Your task to perform on an android device: create a new album in the google photos Image 0: 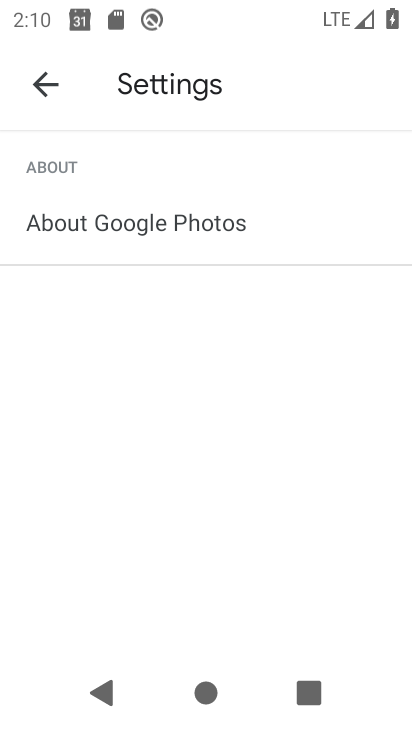
Step 0: press back button
Your task to perform on an android device: create a new album in the google photos Image 1: 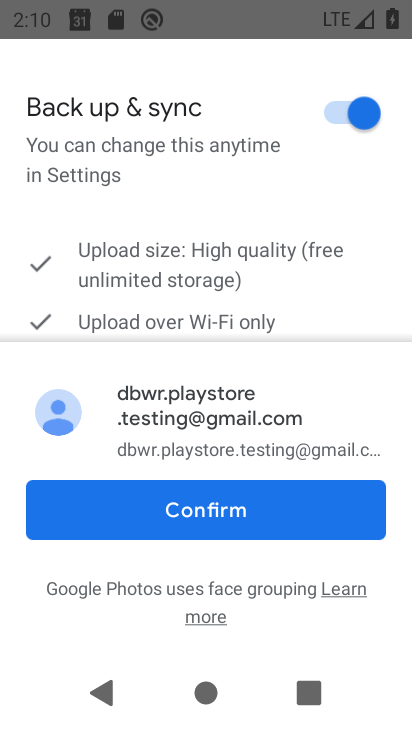
Step 1: click (262, 514)
Your task to perform on an android device: create a new album in the google photos Image 2: 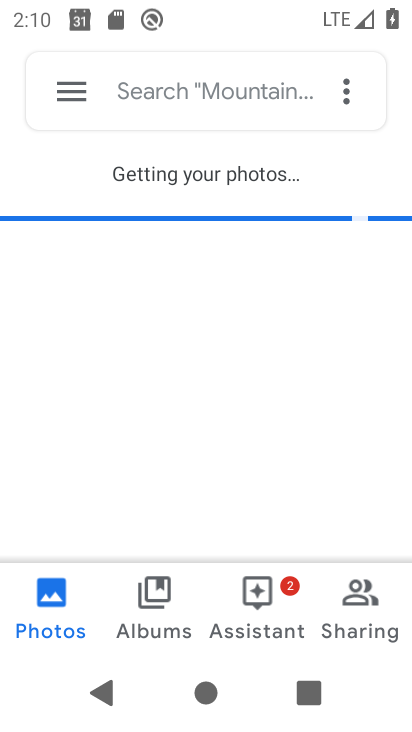
Step 2: click (163, 634)
Your task to perform on an android device: create a new album in the google photos Image 3: 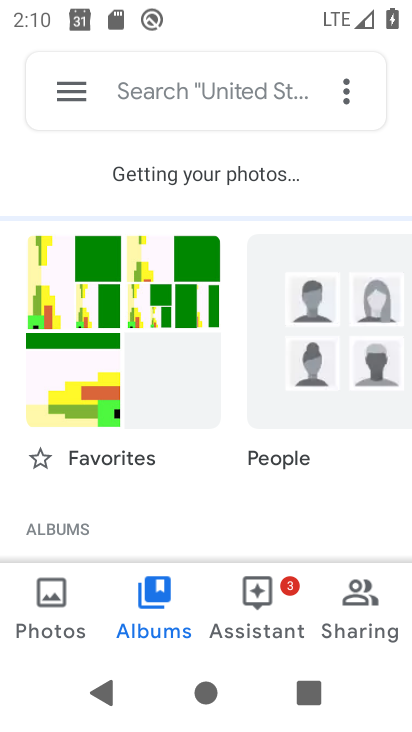
Step 3: click (346, 90)
Your task to perform on an android device: create a new album in the google photos Image 4: 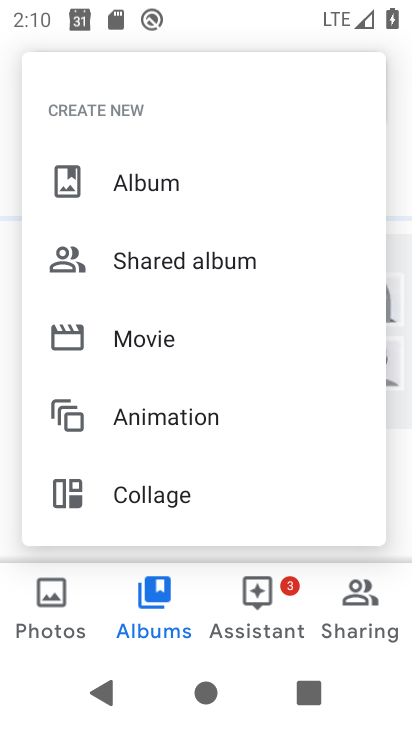
Step 4: click (130, 180)
Your task to perform on an android device: create a new album in the google photos Image 5: 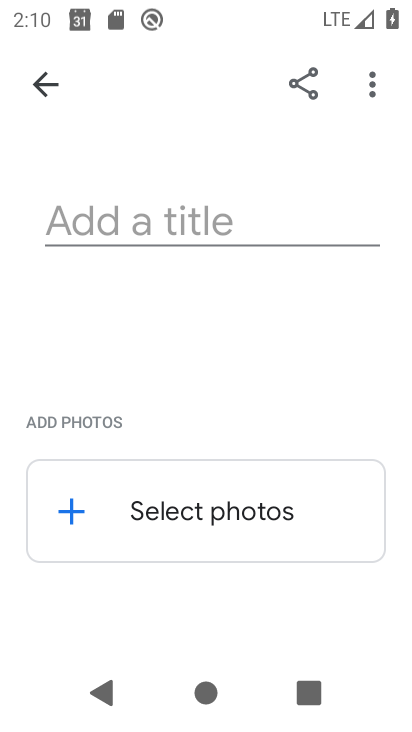
Step 5: click (115, 208)
Your task to perform on an android device: create a new album in the google photos Image 6: 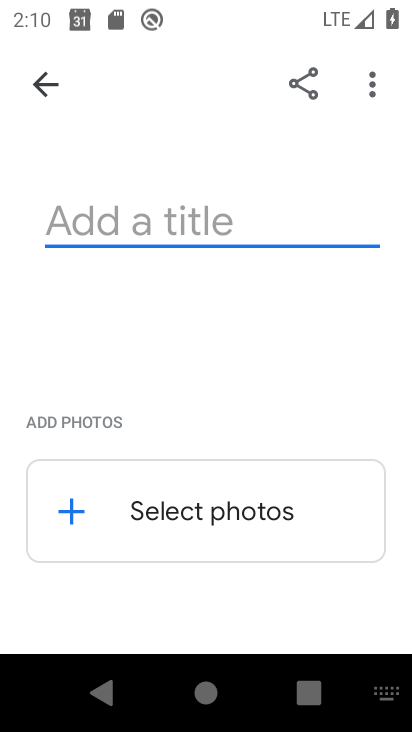
Step 6: type "hvhv"
Your task to perform on an android device: create a new album in the google photos Image 7: 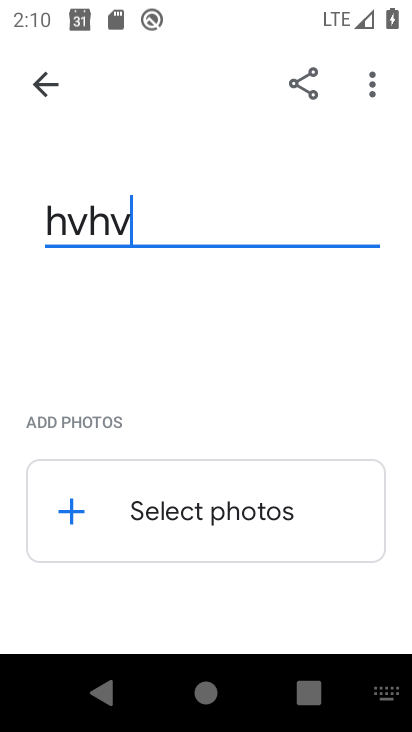
Step 7: click (253, 517)
Your task to perform on an android device: create a new album in the google photos Image 8: 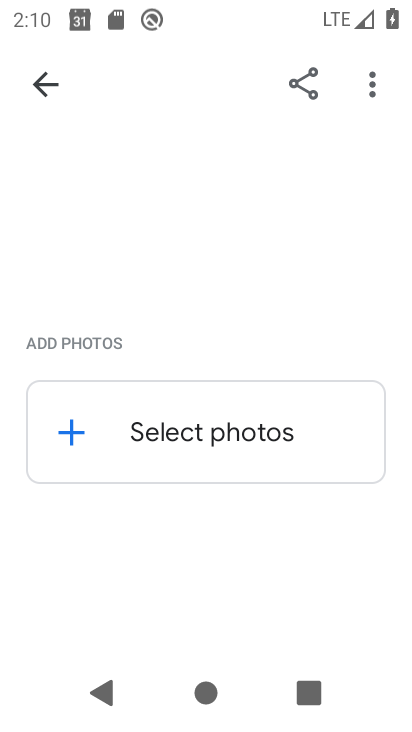
Step 8: click (97, 426)
Your task to perform on an android device: create a new album in the google photos Image 9: 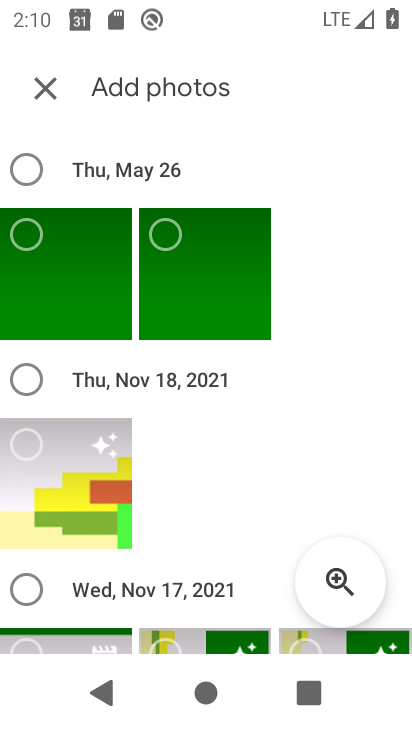
Step 9: click (36, 160)
Your task to perform on an android device: create a new album in the google photos Image 10: 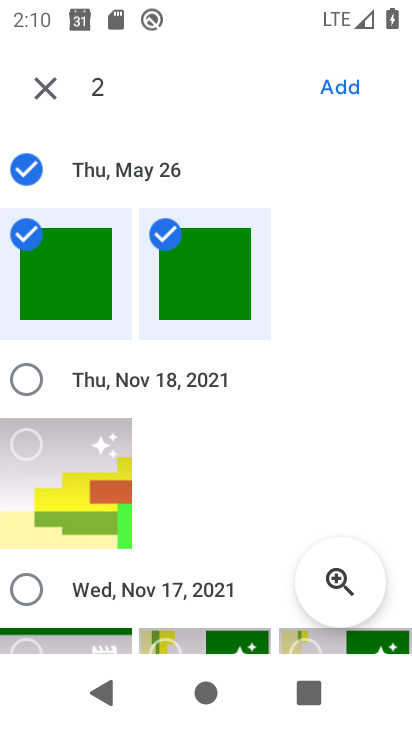
Step 10: click (12, 364)
Your task to perform on an android device: create a new album in the google photos Image 11: 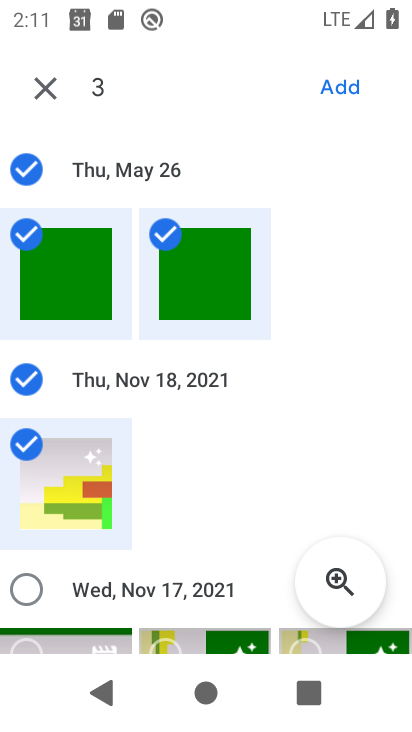
Step 11: click (13, 617)
Your task to perform on an android device: create a new album in the google photos Image 12: 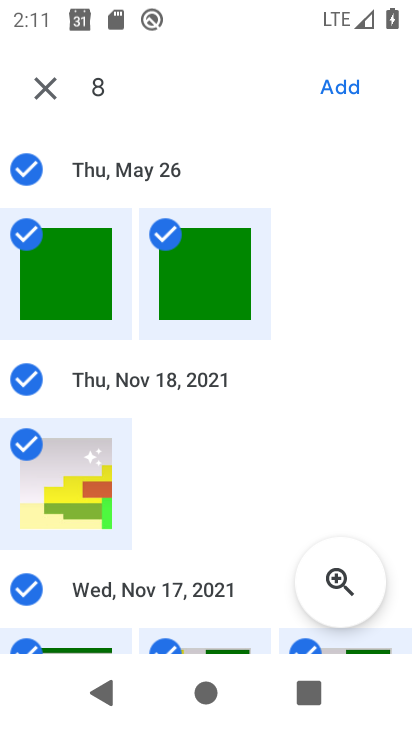
Step 12: click (322, 99)
Your task to perform on an android device: create a new album in the google photos Image 13: 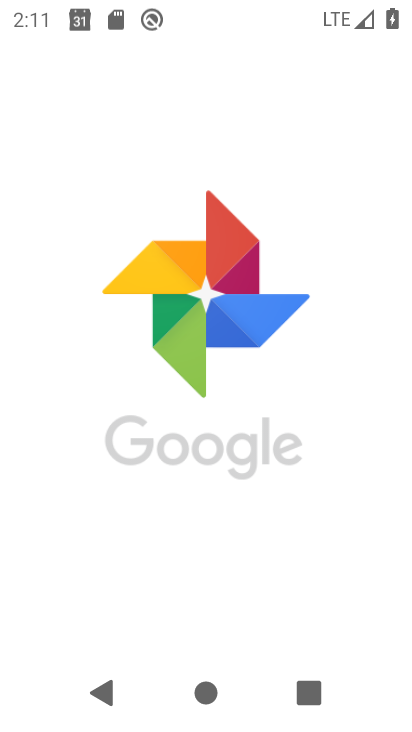
Step 13: task complete